Your task to perform on an android device: Open calendar and show me the second week of next month Image 0: 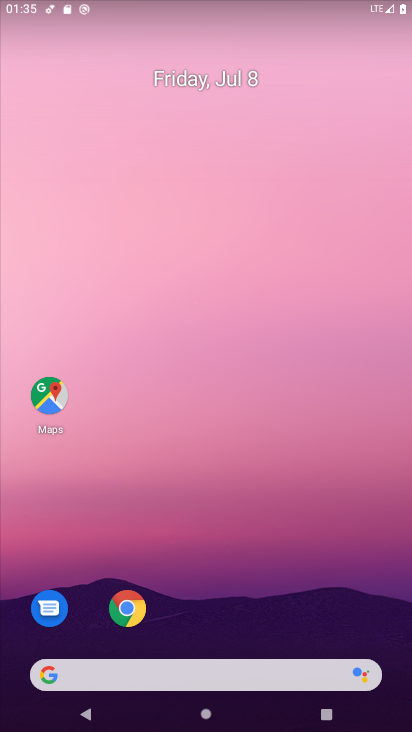
Step 0: drag from (269, 614) to (291, 191)
Your task to perform on an android device: Open calendar and show me the second week of next month Image 1: 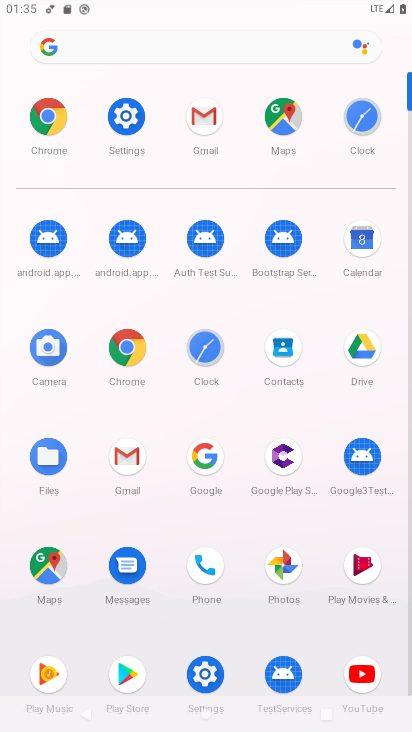
Step 1: click (354, 236)
Your task to perform on an android device: Open calendar and show me the second week of next month Image 2: 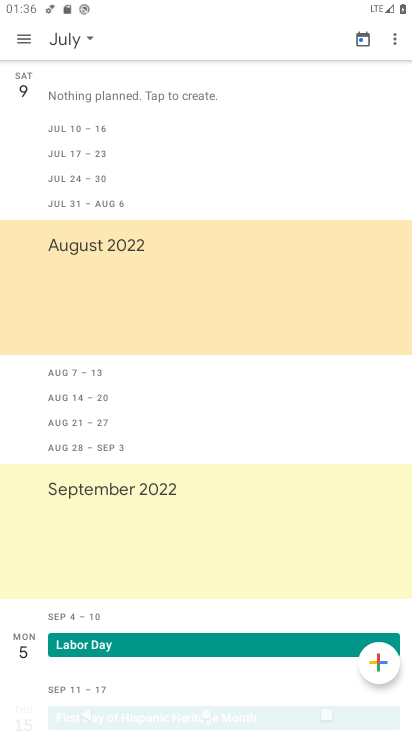
Step 2: click (43, 37)
Your task to perform on an android device: Open calendar and show me the second week of next month Image 3: 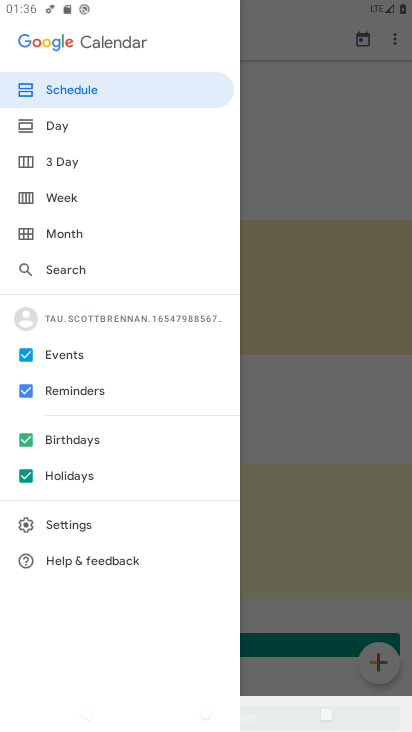
Step 3: click (87, 223)
Your task to perform on an android device: Open calendar and show me the second week of next month Image 4: 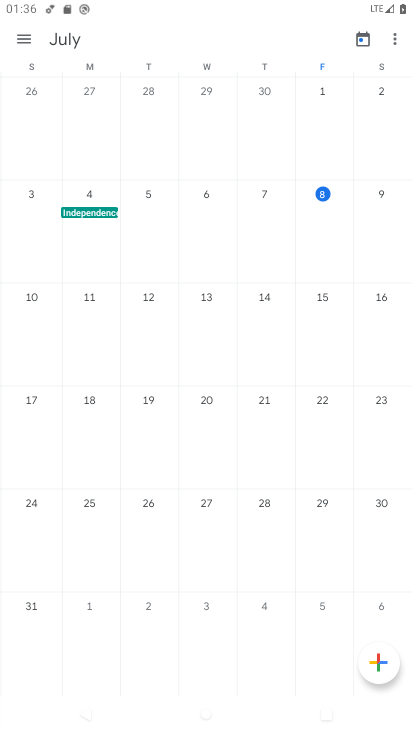
Step 4: task complete